Your task to perform on an android device: change your default location settings in chrome Image 0: 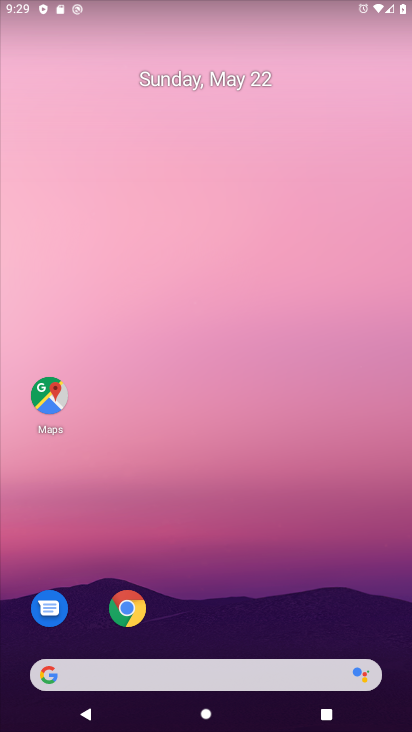
Step 0: drag from (239, 542) to (214, 3)
Your task to perform on an android device: change your default location settings in chrome Image 1: 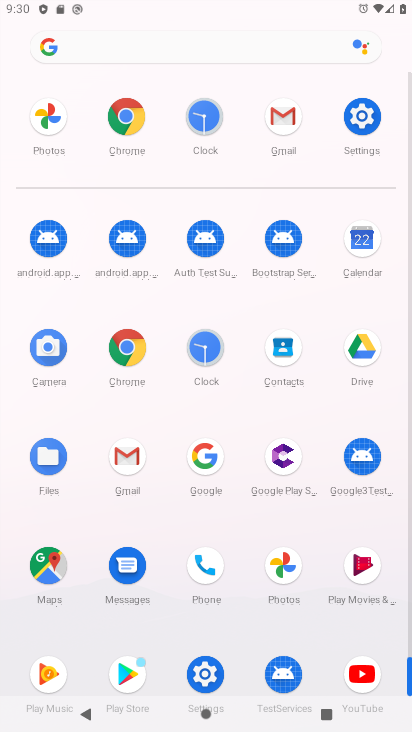
Step 1: drag from (13, 572) to (23, 242)
Your task to perform on an android device: change your default location settings in chrome Image 2: 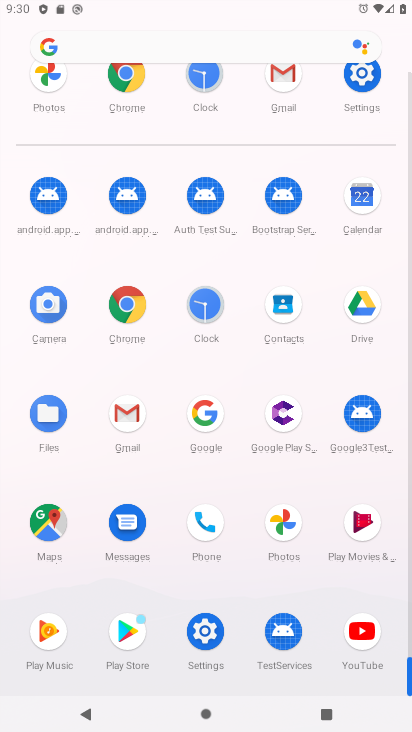
Step 2: click (126, 302)
Your task to perform on an android device: change your default location settings in chrome Image 3: 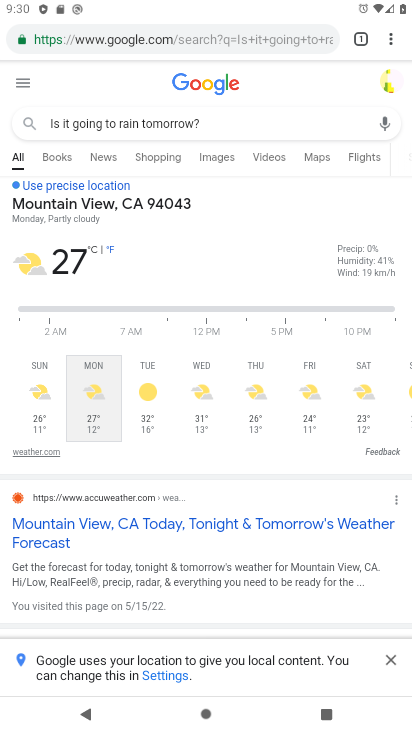
Step 3: drag from (387, 38) to (252, 441)
Your task to perform on an android device: change your default location settings in chrome Image 4: 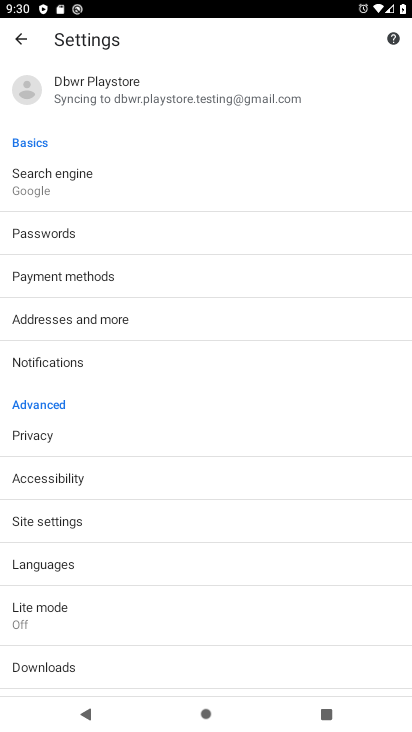
Step 4: drag from (183, 584) to (208, 197)
Your task to perform on an android device: change your default location settings in chrome Image 5: 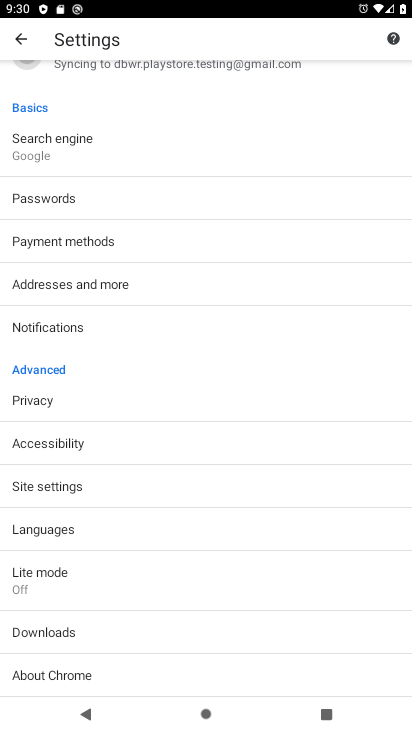
Step 5: click (86, 475)
Your task to perform on an android device: change your default location settings in chrome Image 6: 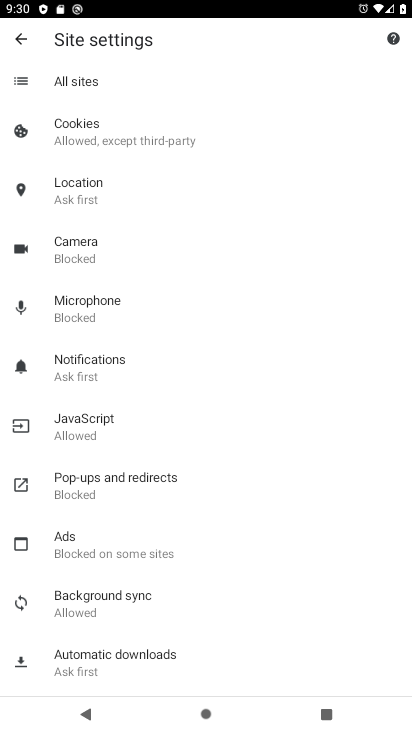
Step 6: click (84, 190)
Your task to perform on an android device: change your default location settings in chrome Image 7: 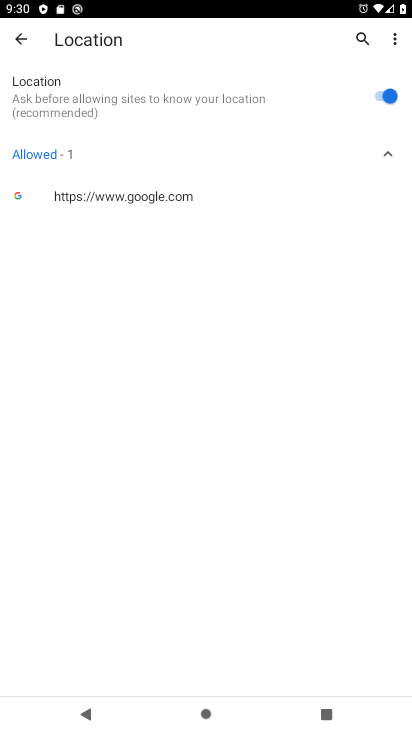
Step 7: click (386, 88)
Your task to perform on an android device: change your default location settings in chrome Image 8: 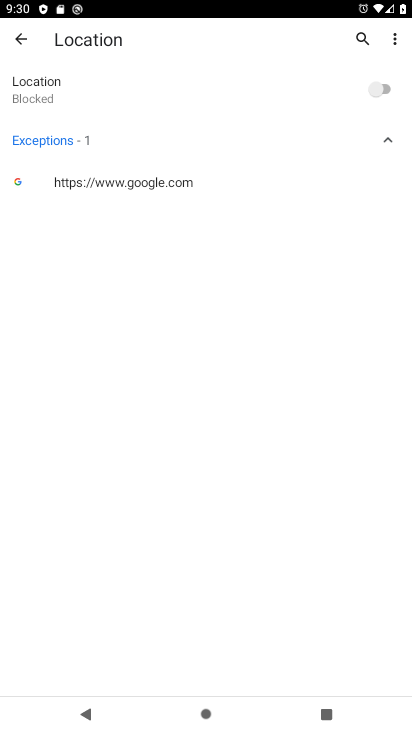
Step 8: task complete